Your task to perform on an android device: Open Chrome and go to the settings page Image 0: 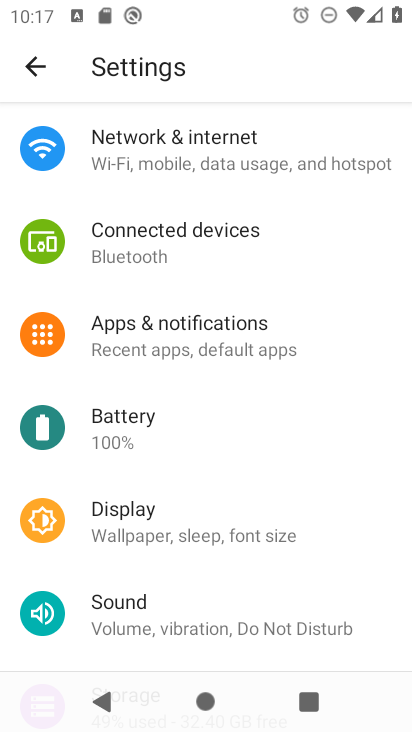
Step 0: press home button
Your task to perform on an android device: Open Chrome and go to the settings page Image 1: 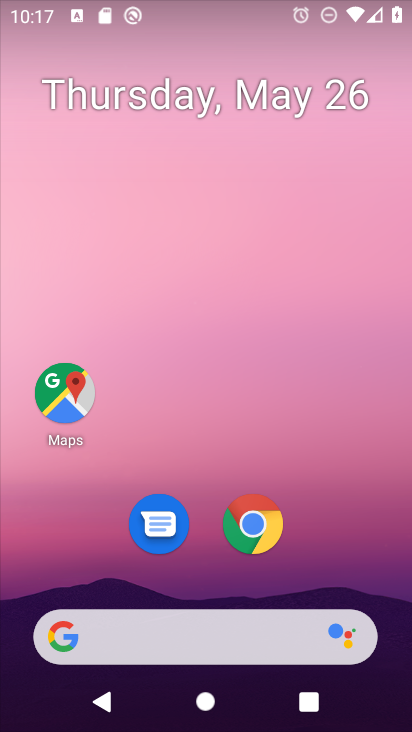
Step 1: click (261, 548)
Your task to perform on an android device: Open Chrome and go to the settings page Image 2: 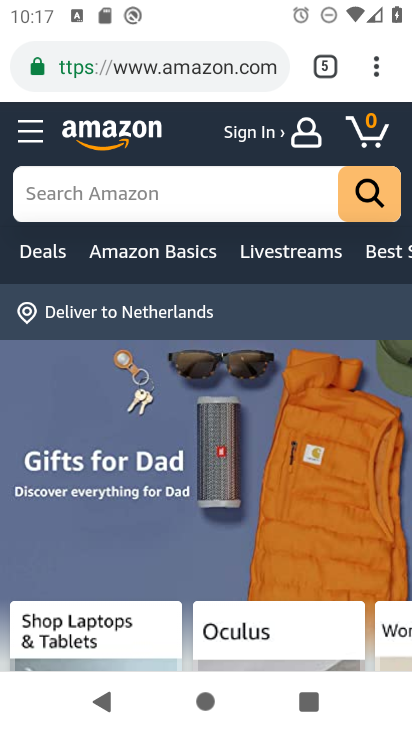
Step 2: click (367, 61)
Your task to perform on an android device: Open Chrome and go to the settings page Image 3: 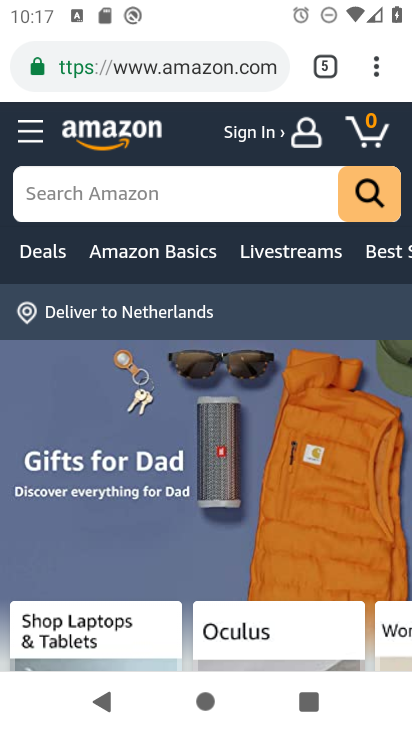
Step 3: click (372, 58)
Your task to perform on an android device: Open Chrome and go to the settings page Image 4: 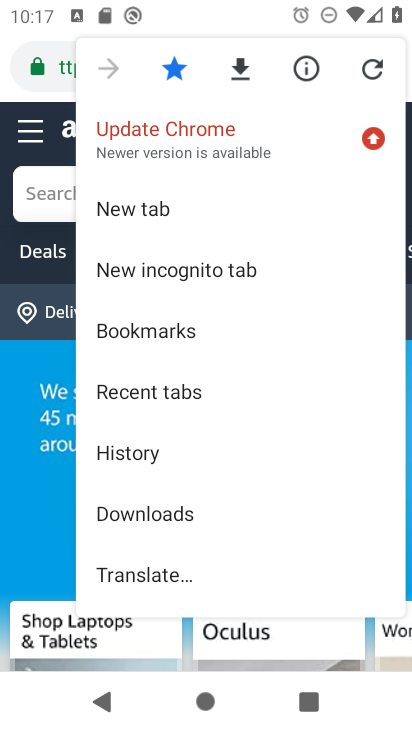
Step 4: drag from (292, 477) to (292, 191)
Your task to perform on an android device: Open Chrome and go to the settings page Image 5: 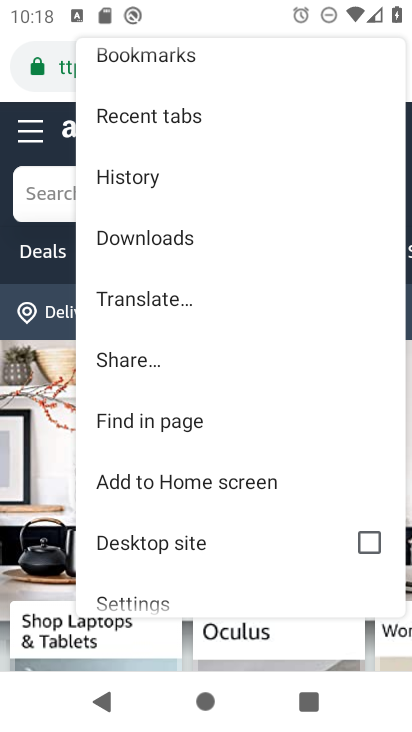
Step 5: drag from (250, 403) to (246, 183)
Your task to perform on an android device: Open Chrome and go to the settings page Image 6: 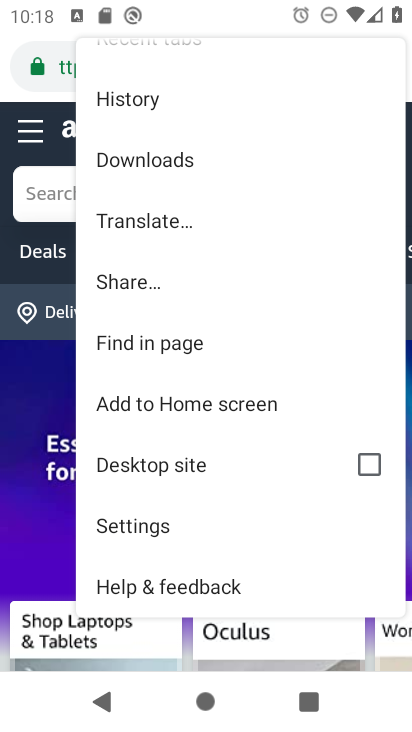
Step 6: click (138, 517)
Your task to perform on an android device: Open Chrome and go to the settings page Image 7: 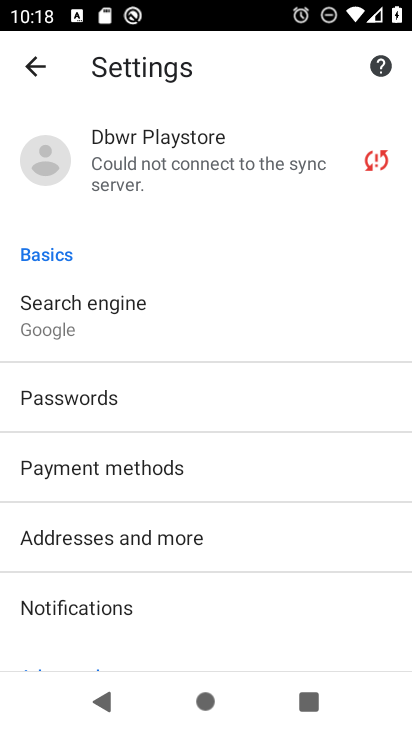
Step 7: task complete